Your task to perform on an android device: change the clock style Image 0: 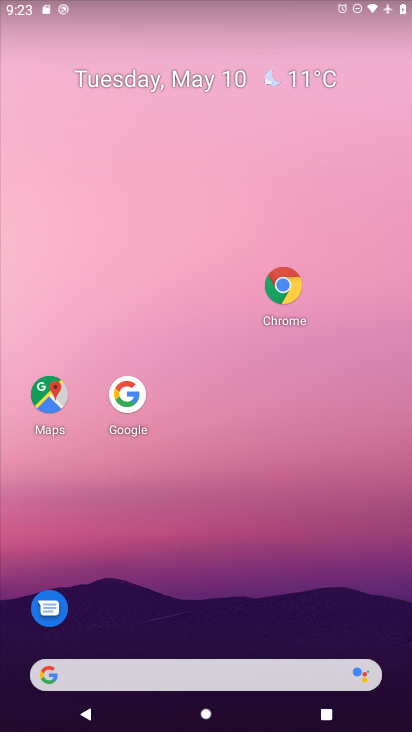
Step 0: drag from (192, 677) to (311, 177)
Your task to perform on an android device: change the clock style Image 1: 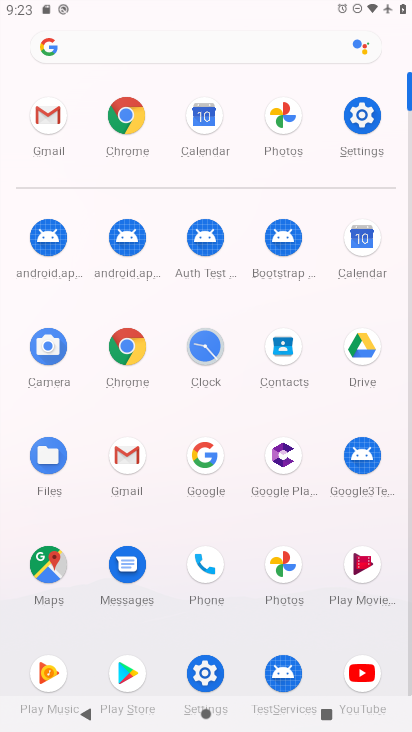
Step 1: click (200, 358)
Your task to perform on an android device: change the clock style Image 2: 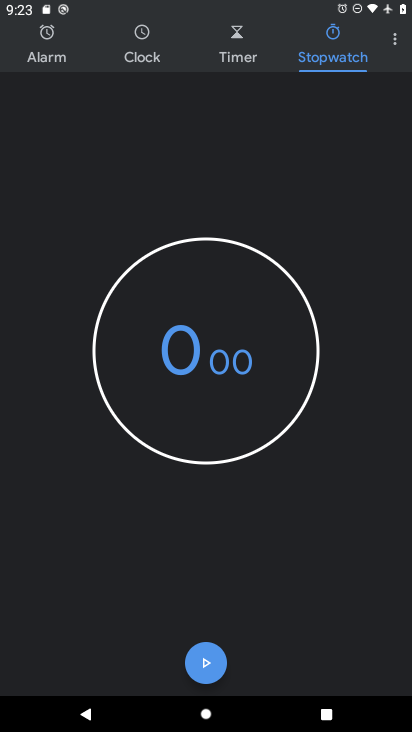
Step 2: click (393, 40)
Your task to perform on an android device: change the clock style Image 3: 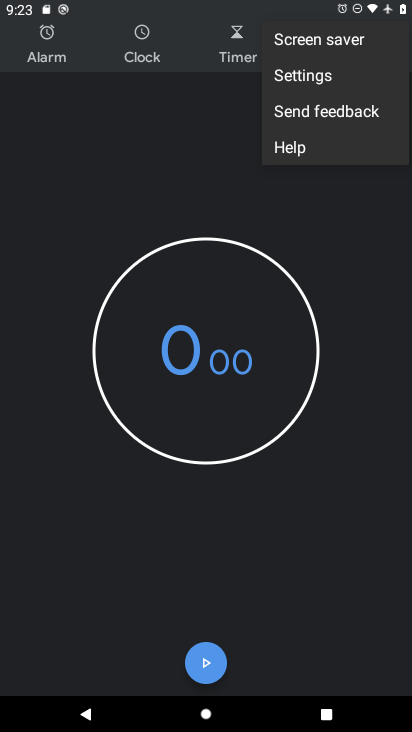
Step 3: click (316, 76)
Your task to perform on an android device: change the clock style Image 4: 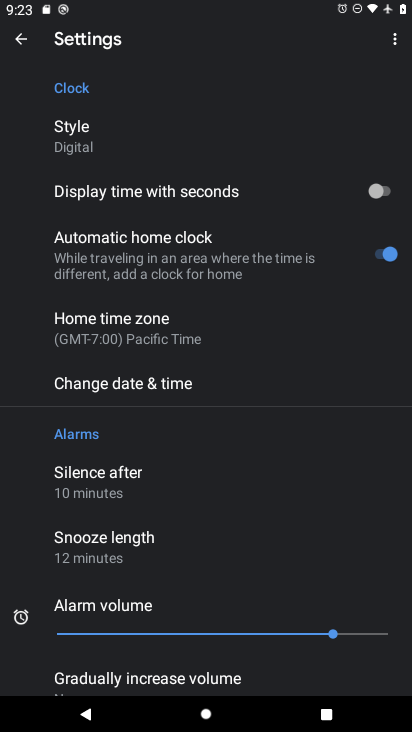
Step 4: click (88, 142)
Your task to perform on an android device: change the clock style Image 5: 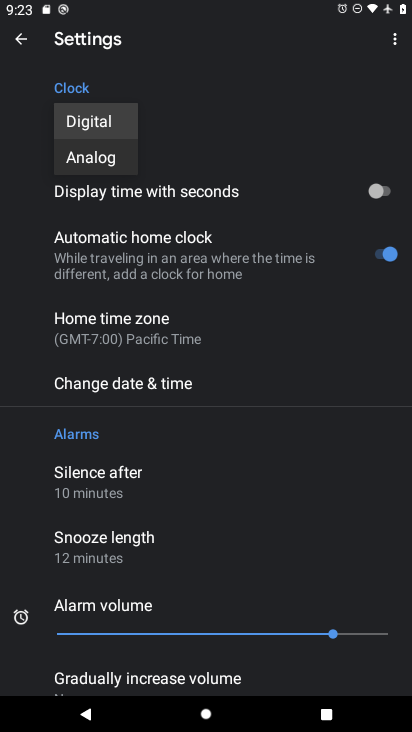
Step 5: click (99, 160)
Your task to perform on an android device: change the clock style Image 6: 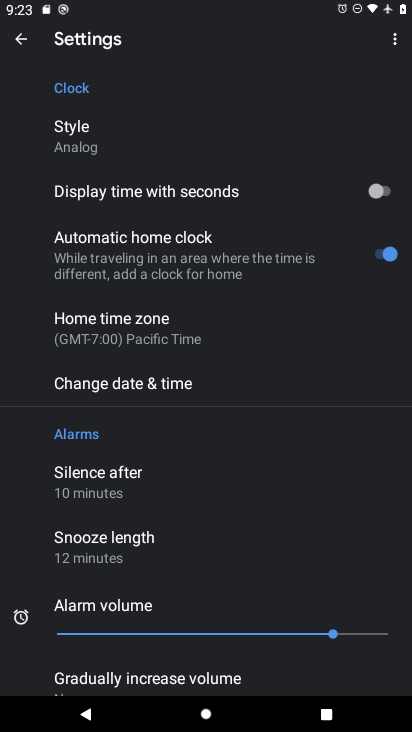
Step 6: task complete